Your task to perform on an android device: Check the weather Image 0: 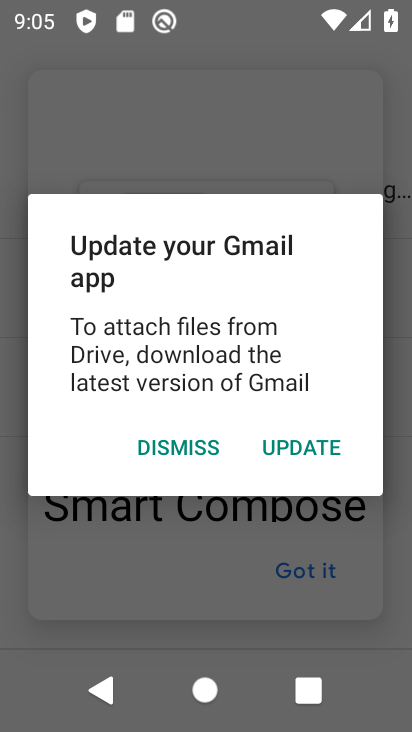
Step 0: press home button
Your task to perform on an android device: Check the weather Image 1: 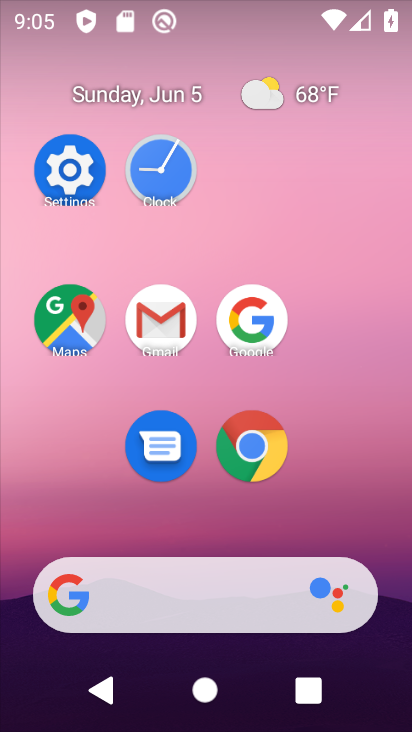
Step 1: click (263, 316)
Your task to perform on an android device: Check the weather Image 2: 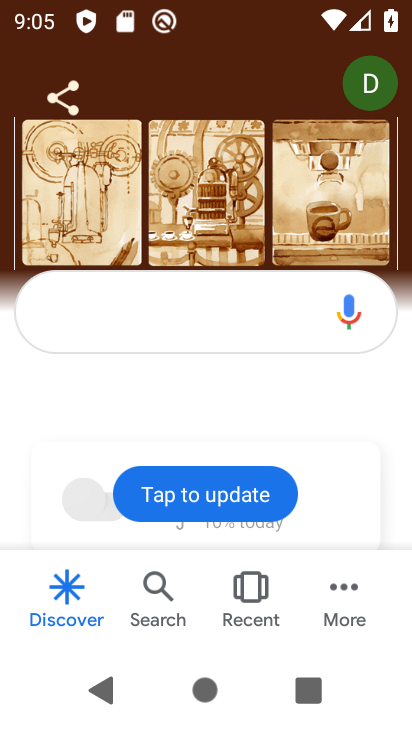
Step 2: press back button
Your task to perform on an android device: Check the weather Image 3: 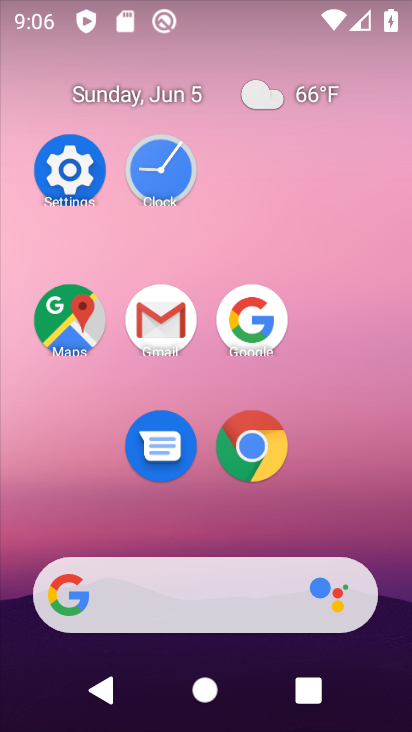
Step 3: click (265, 337)
Your task to perform on an android device: Check the weather Image 4: 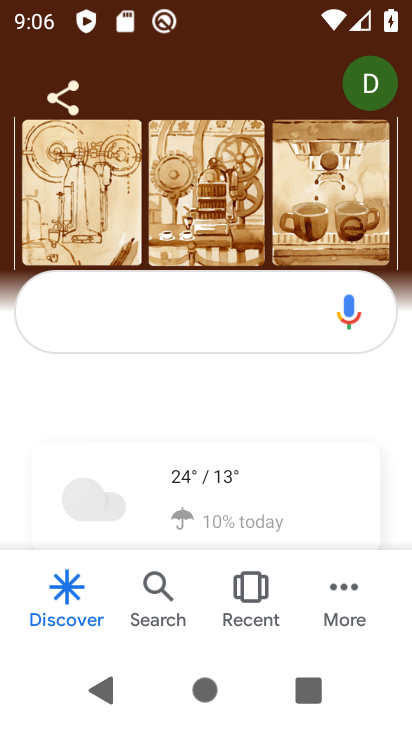
Step 4: click (96, 307)
Your task to perform on an android device: Check the weather Image 5: 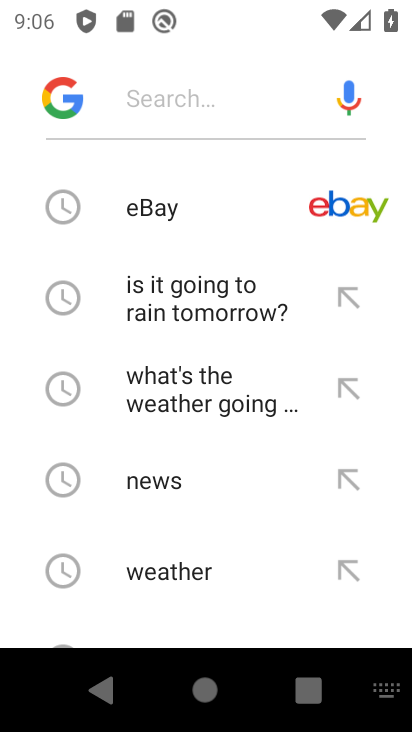
Step 5: click (183, 582)
Your task to perform on an android device: Check the weather Image 6: 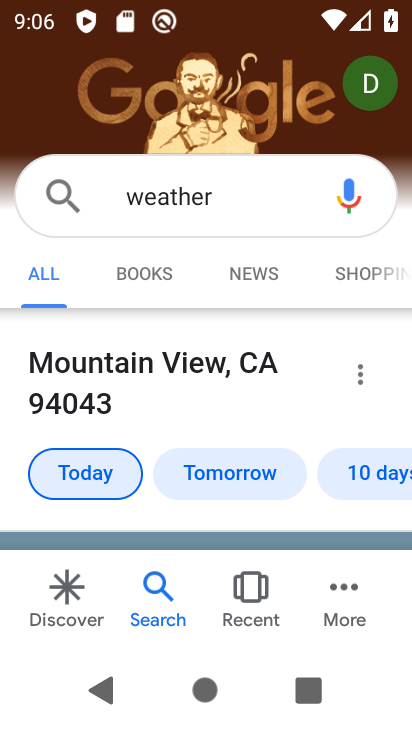
Step 6: task complete